Your task to perform on an android device: toggle airplane mode Image 0: 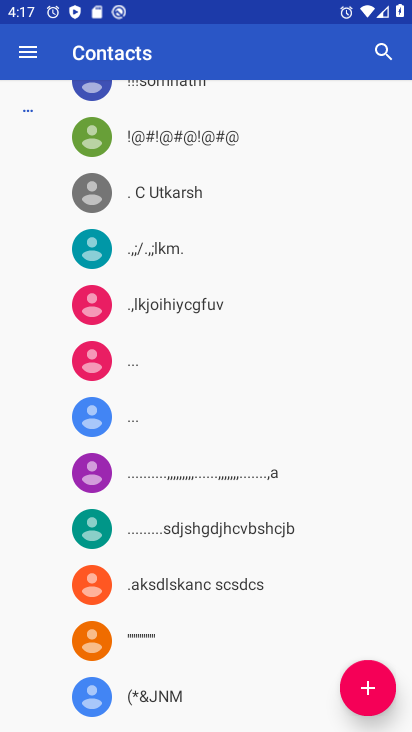
Step 0: press back button
Your task to perform on an android device: toggle airplane mode Image 1: 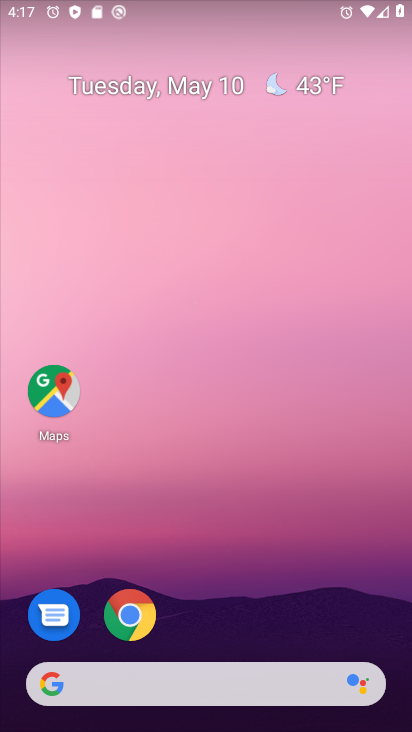
Step 1: drag from (253, 612) to (257, 45)
Your task to perform on an android device: toggle airplane mode Image 2: 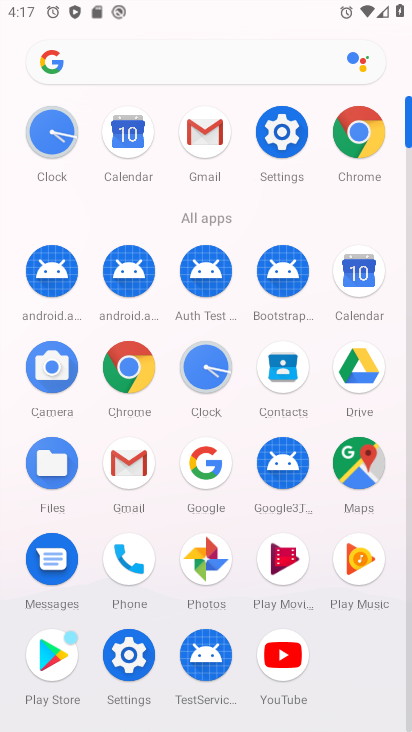
Step 2: click (285, 129)
Your task to perform on an android device: toggle airplane mode Image 3: 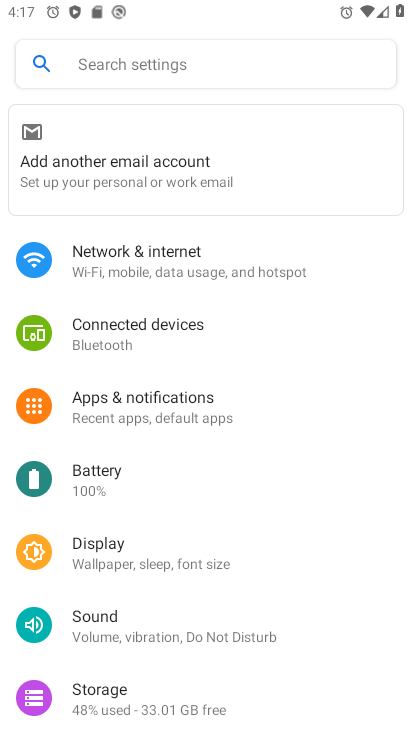
Step 3: click (205, 266)
Your task to perform on an android device: toggle airplane mode Image 4: 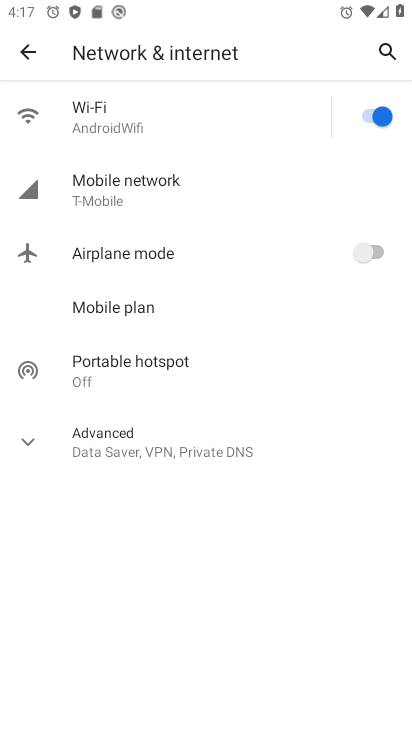
Step 4: click (373, 251)
Your task to perform on an android device: toggle airplane mode Image 5: 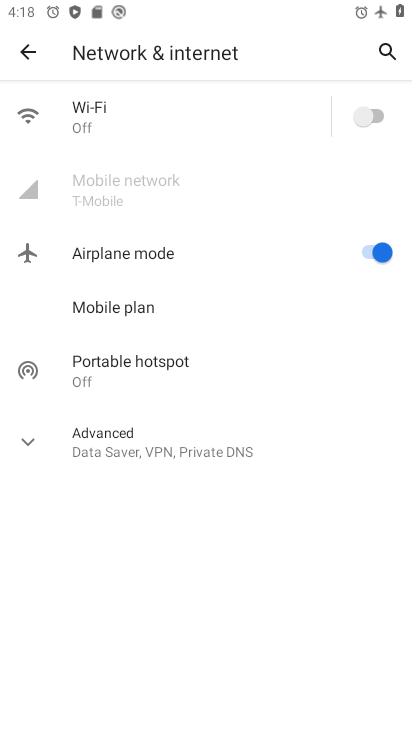
Step 5: task complete